Your task to perform on an android device: Show me recent news Image 0: 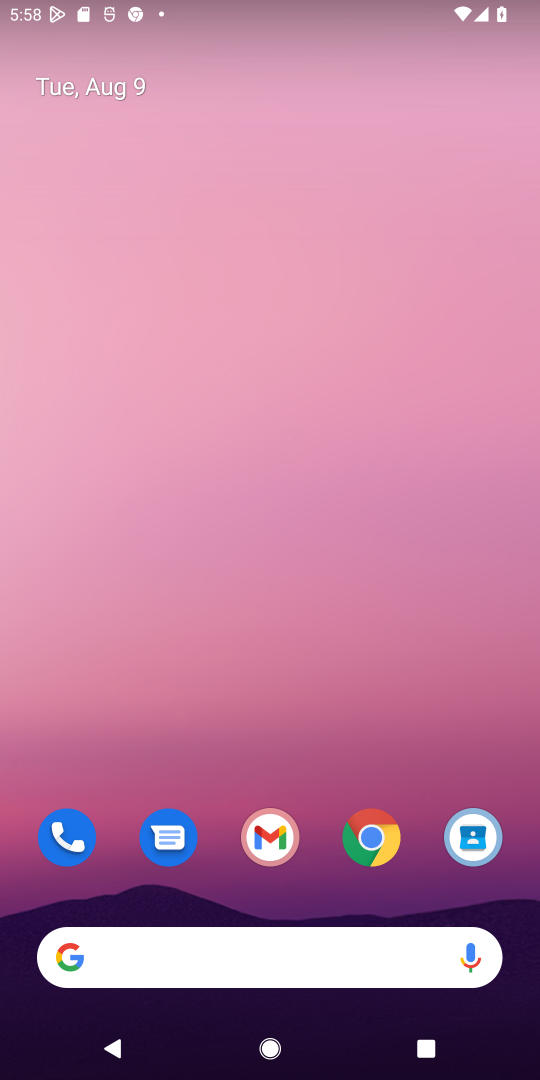
Step 0: drag from (177, 914) to (262, 268)
Your task to perform on an android device: Show me recent news Image 1: 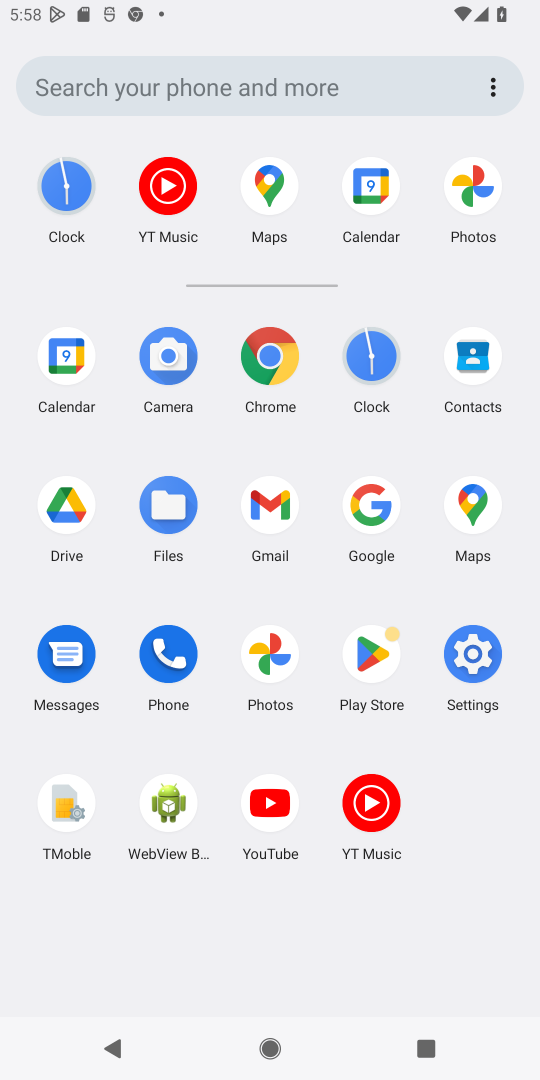
Step 1: click (246, 360)
Your task to perform on an android device: Show me recent news Image 2: 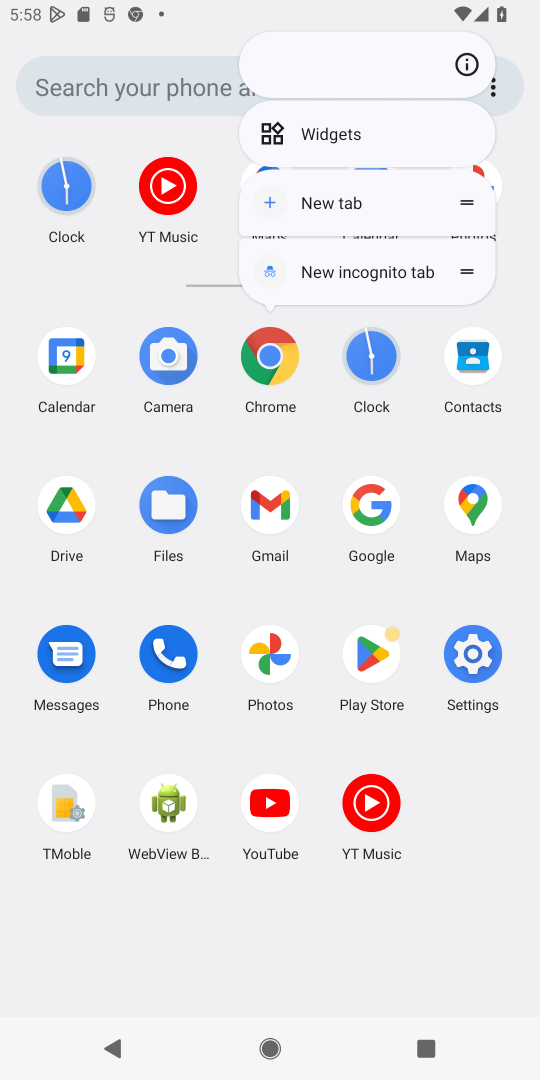
Step 2: click (275, 340)
Your task to perform on an android device: Show me recent news Image 3: 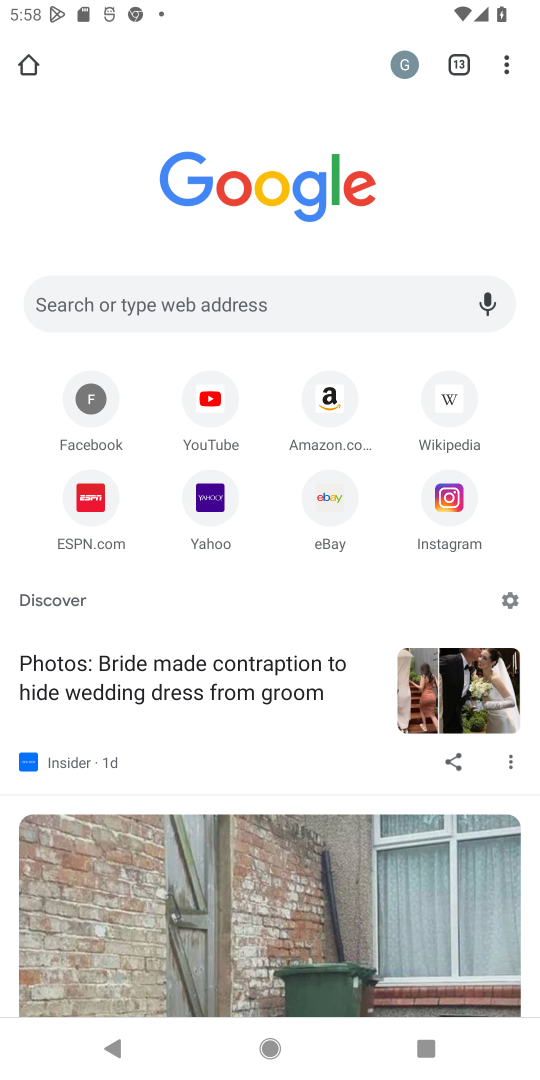
Step 3: click (289, 293)
Your task to perform on an android device: Show me recent news Image 4: 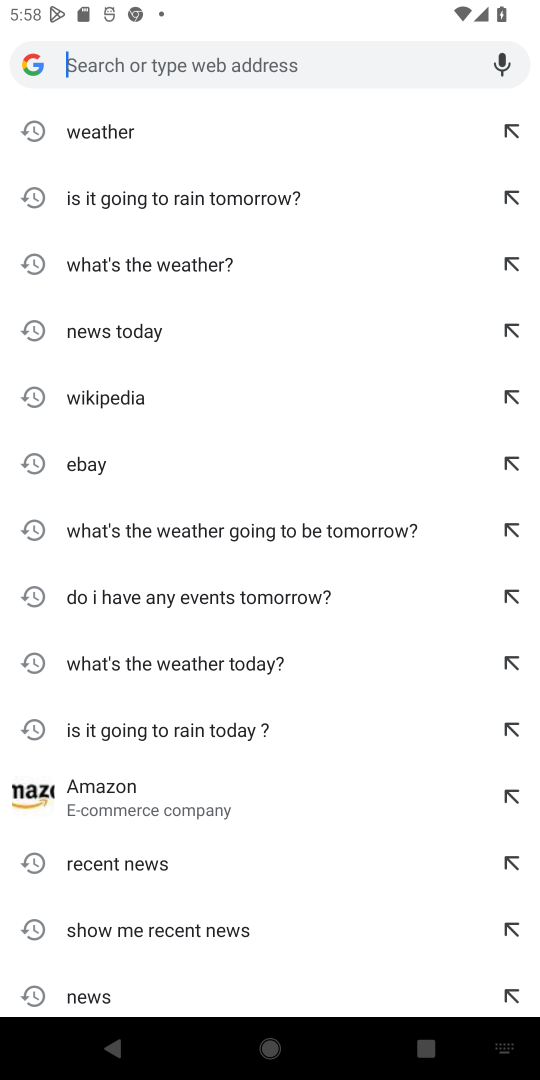
Step 4: type "Show me recent news "
Your task to perform on an android device: Show me recent news Image 5: 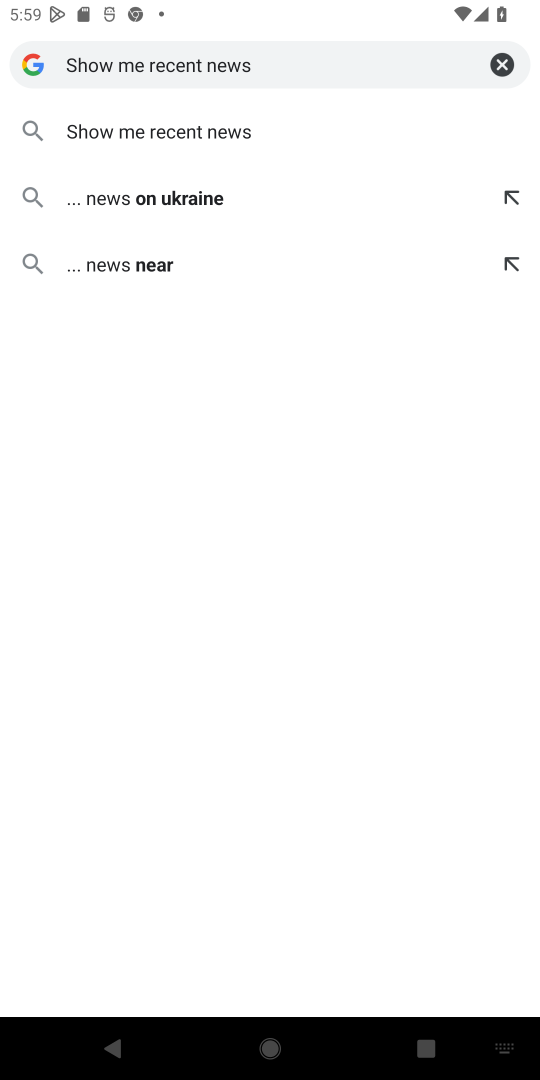
Step 5: click (113, 142)
Your task to perform on an android device: Show me recent news Image 6: 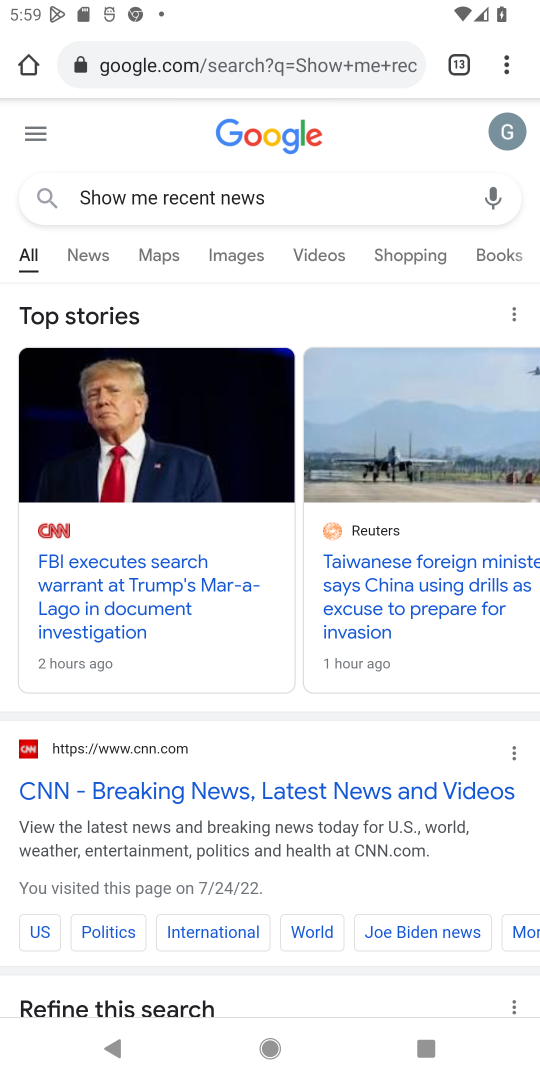
Step 6: task complete